Your task to perform on an android device: all mails in gmail Image 0: 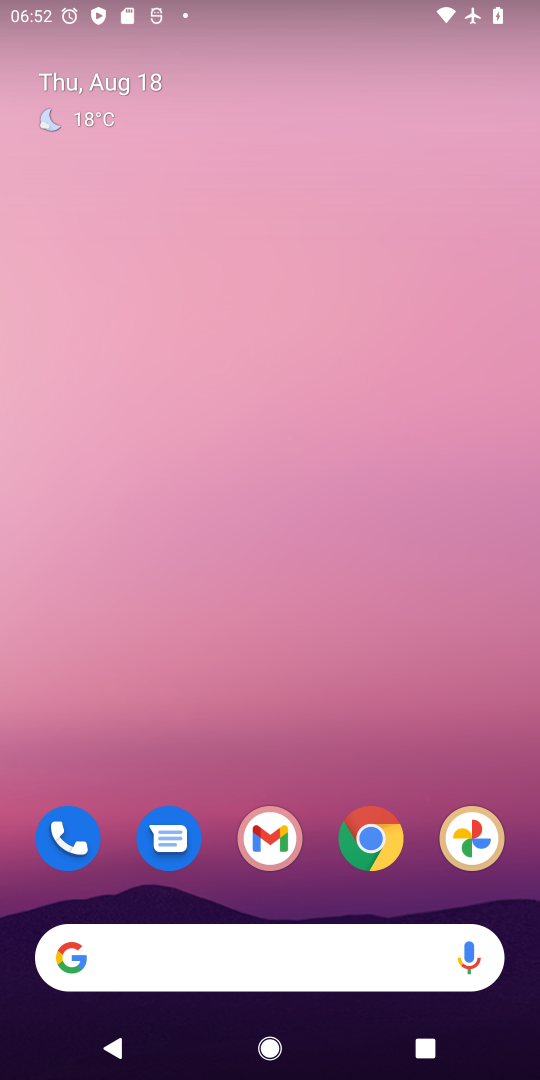
Step 0: press home button
Your task to perform on an android device: all mails in gmail Image 1: 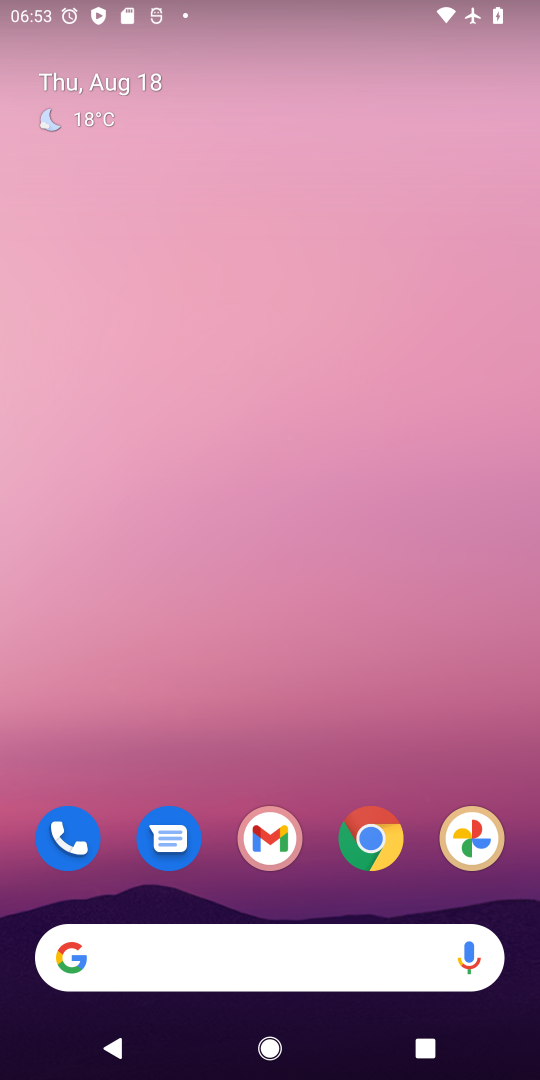
Step 1: click (276, 830)
Your task to perform on an android device: all mails in gmail Image 2: 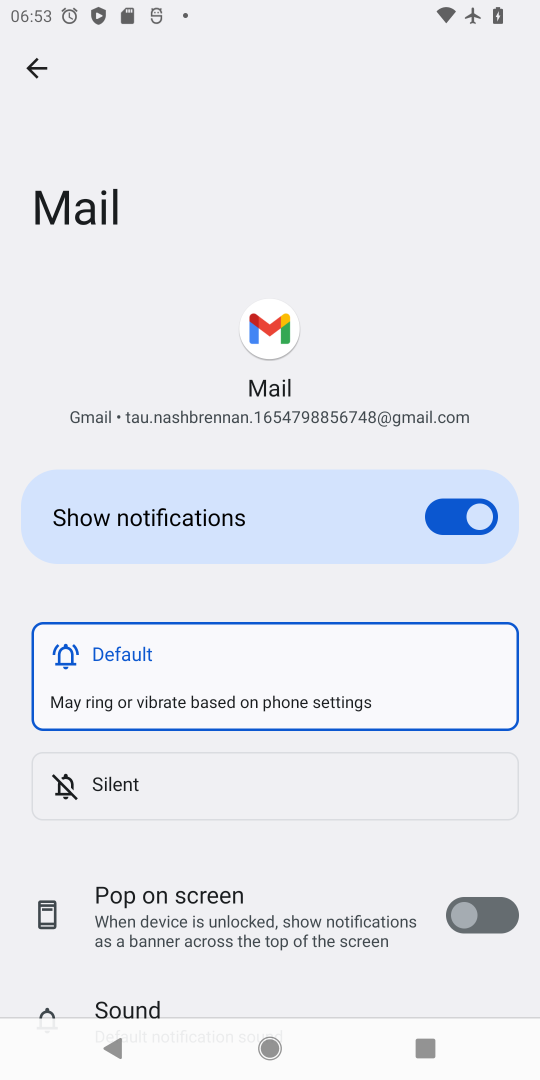
Step 2: press back button
Your task to perform on an android device: all mails in gmail Image 3: 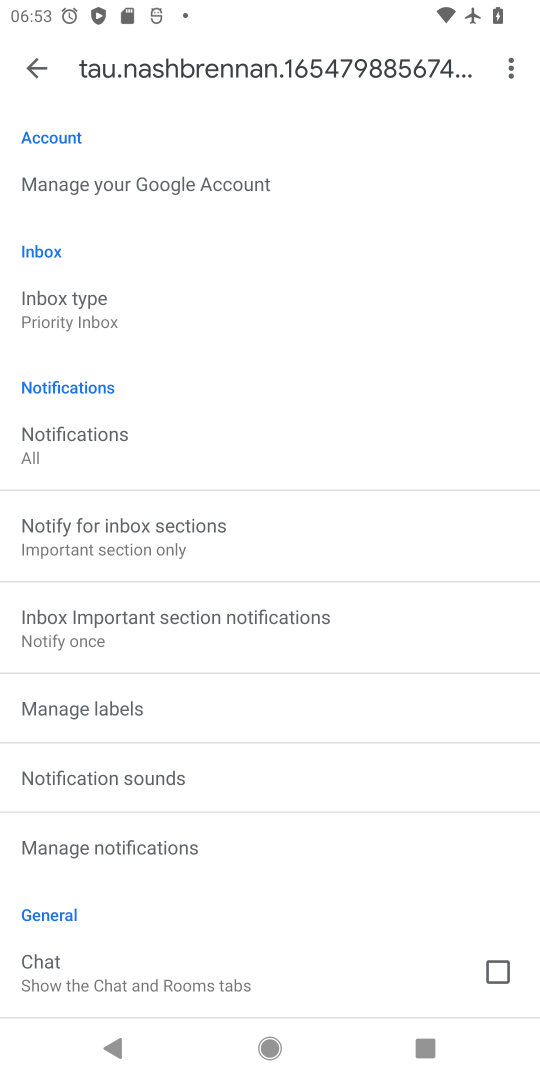
Step 3: press back button
Your task to perform on an android device: all mails in gmail Image 4: 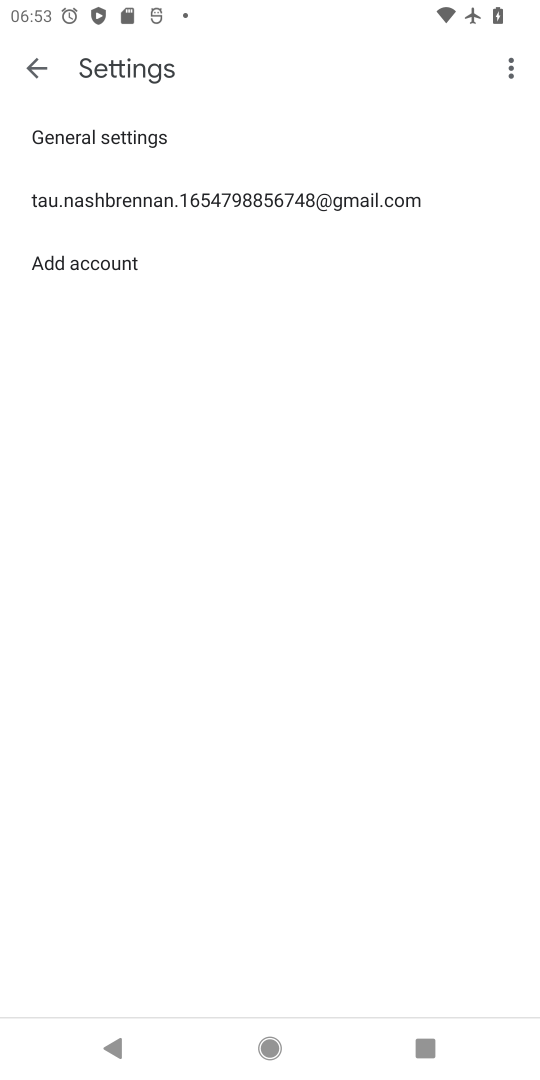
Step 4: press back button
Your task to perform on an android device: all mails in gmail Image 5: 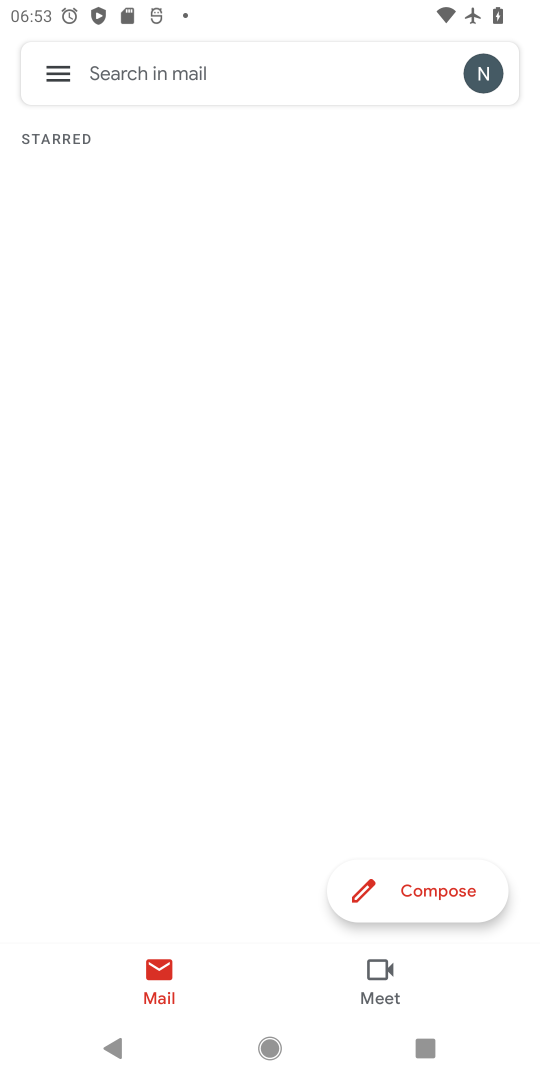
Step 5: click (53, 86)
Your task to perform on an android device: all mails in gmail Image 6: 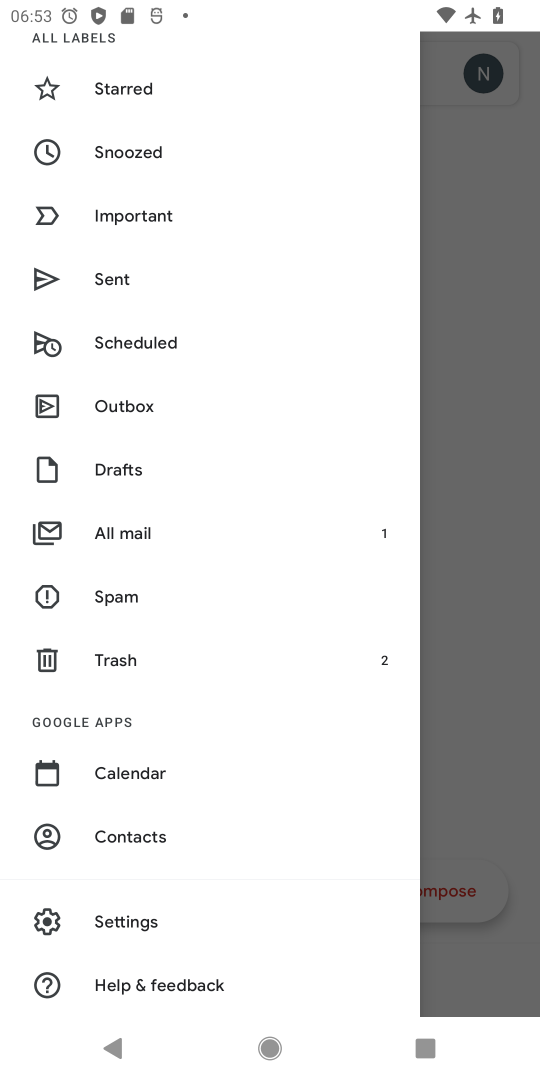
Step 6: click (130, 532)
Your task to perform on an android device: all mails in gmail Image 7: 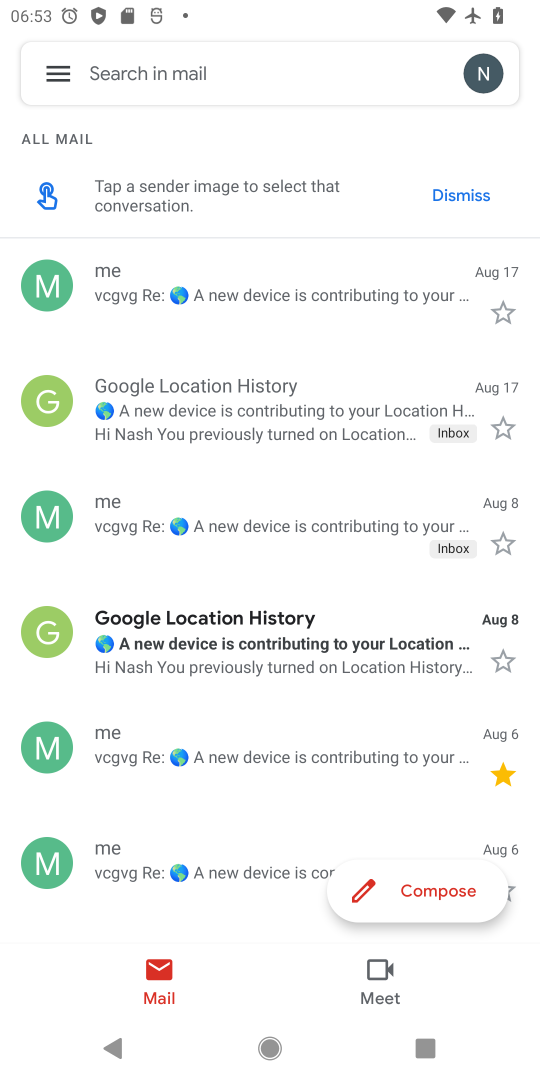
Step 7: task complete